Your task to perform on an android device: Open Google Image 0: 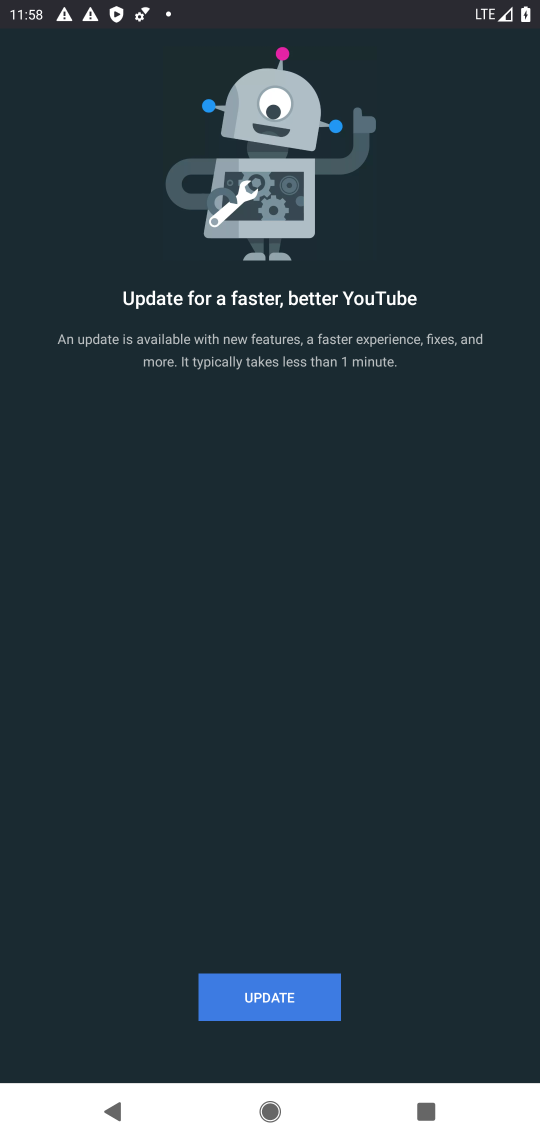
Step 0: press home button
Your task to perform on an android device: Open Google Image 1: 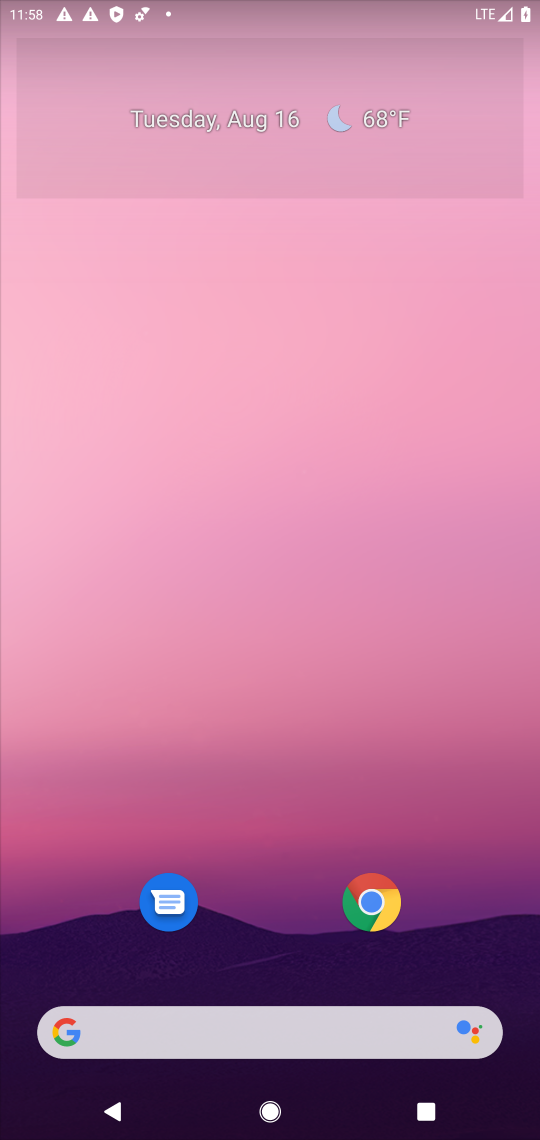
Step 1: drag from (257, 676) to (96, 21)
Your task to perform on an android device: Open Google Image 2: 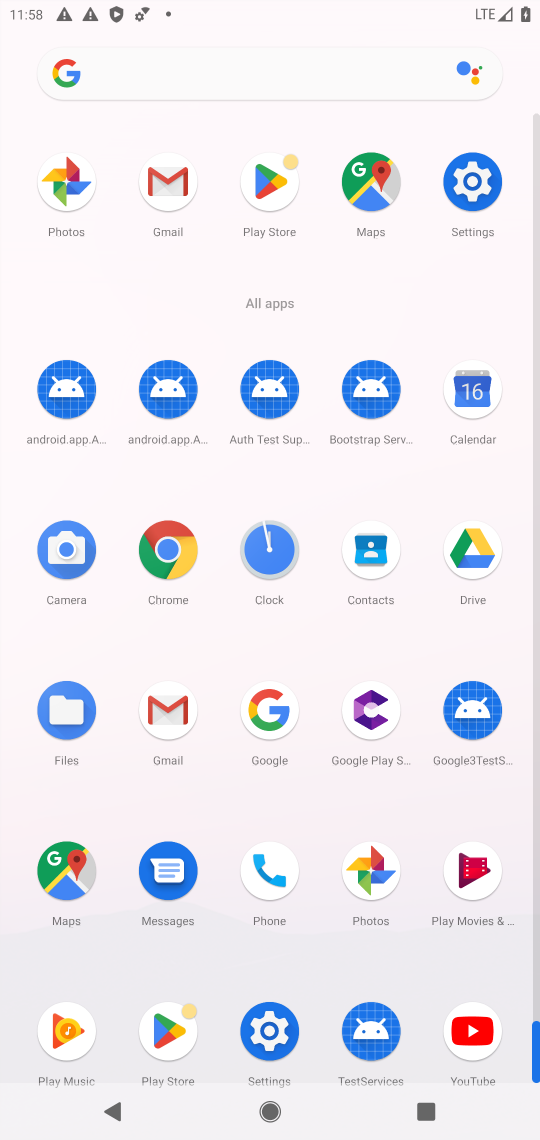
Step 2: click (70, 72)
Your task to perform on an android device: Open Google Image 3: 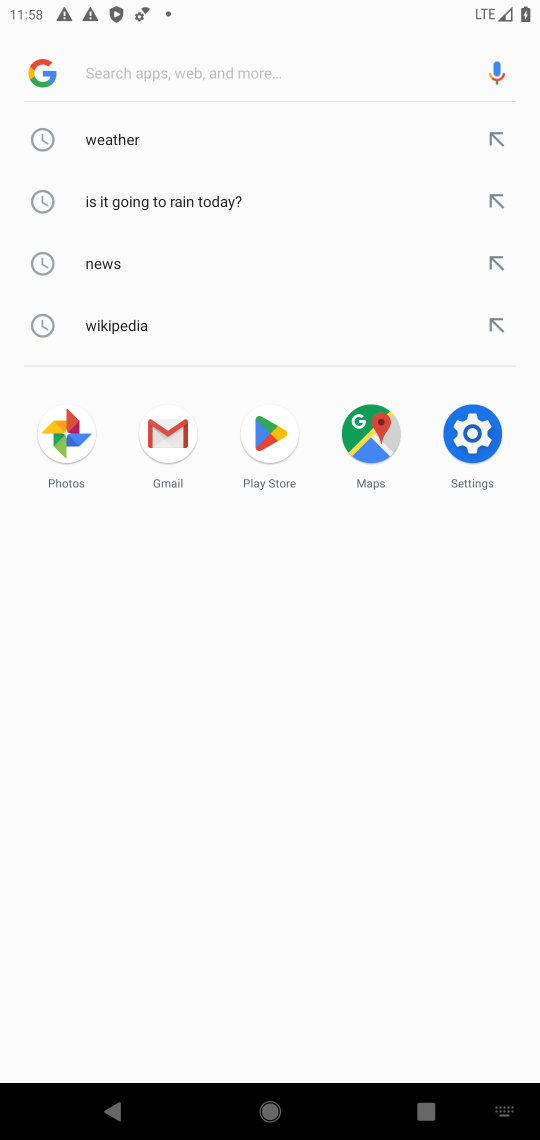
Step 3: click (35, 72)
Your task to perform on an android device: Open Google Image 4: 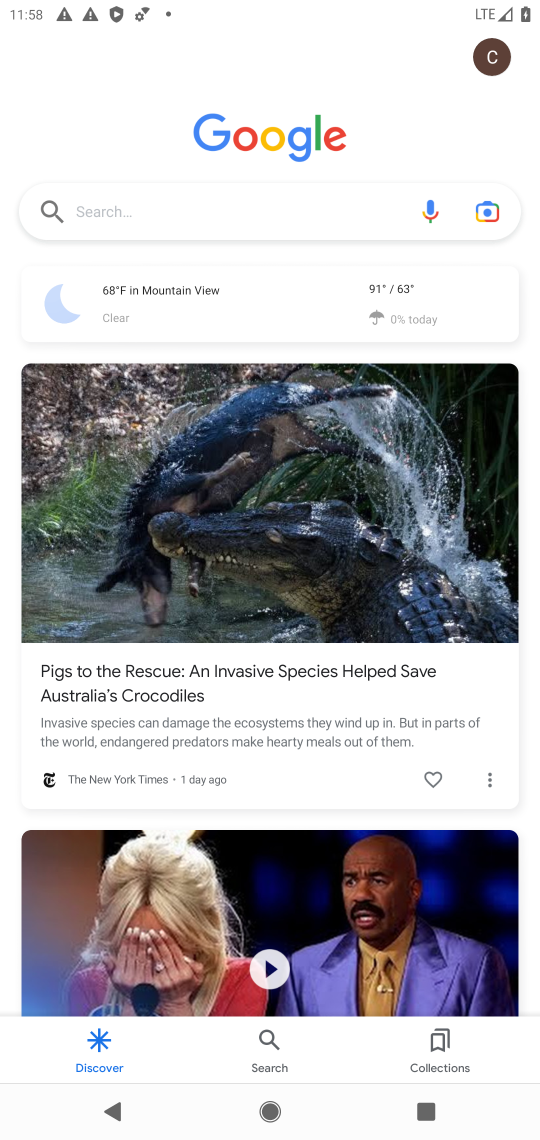
Step 4: task complete